Your task to perform on an android device: delete browsing data in the chrome app Image 0: 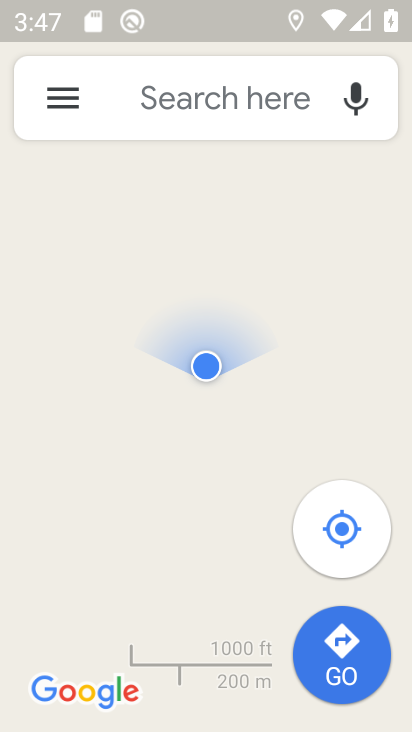
Step 0: press home button
Your task to perform on an android device: delete browsing data in the chrome app Image 1: 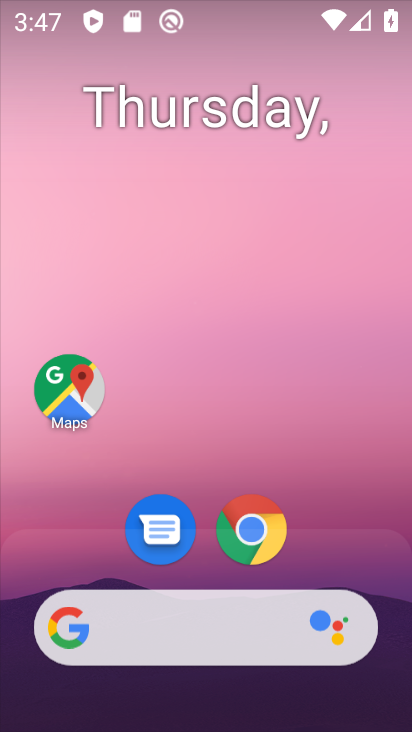
Step 1: click (258, 536)
Your task to perform on an android device: delete browsing data in the chrome app Image 2: 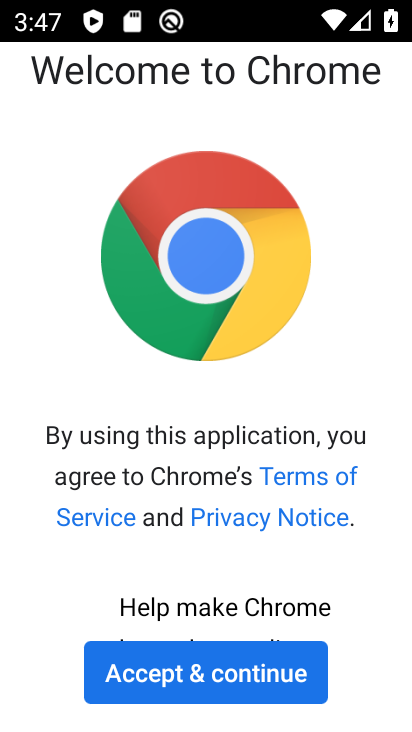
Step 2: click (189, 671)
Your task to perform on an android device: delete browsing data in the chrome app Image 3: 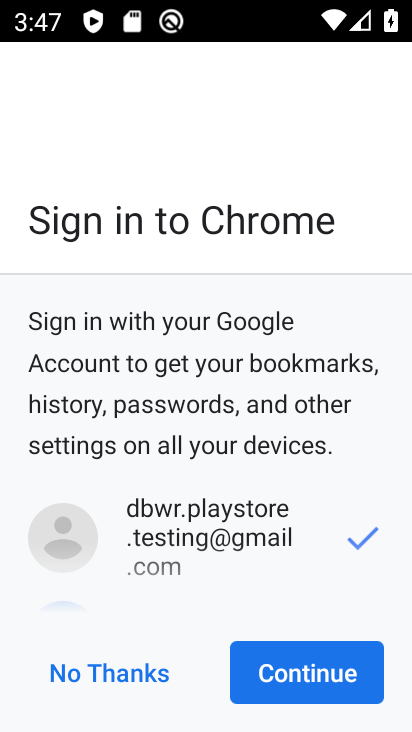
Step 3: click (286, 688)
Your task to perform on an android device: delete browsing data in the chrome app Image 4: 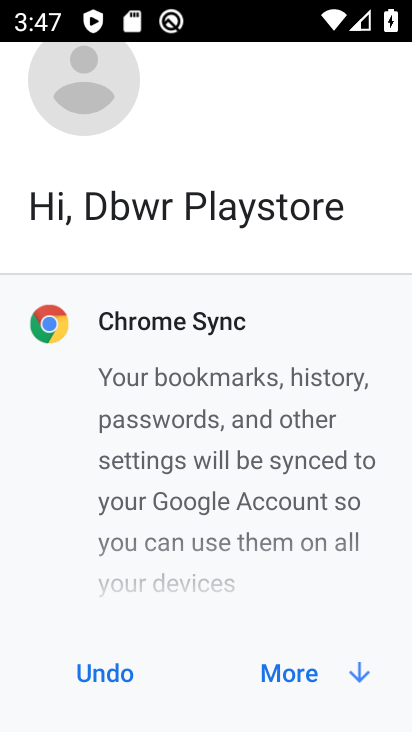
Step 4: click (298, 679)
Your task to perform on an android device: delete browsing data in the chrome app Image 5: 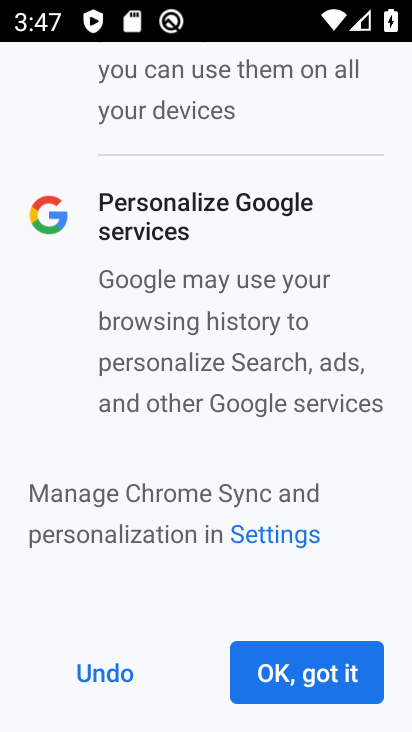
Step 5: click (299, 679)
Your task to perform on an android device: delete browsing data in the chrome app Image 6: 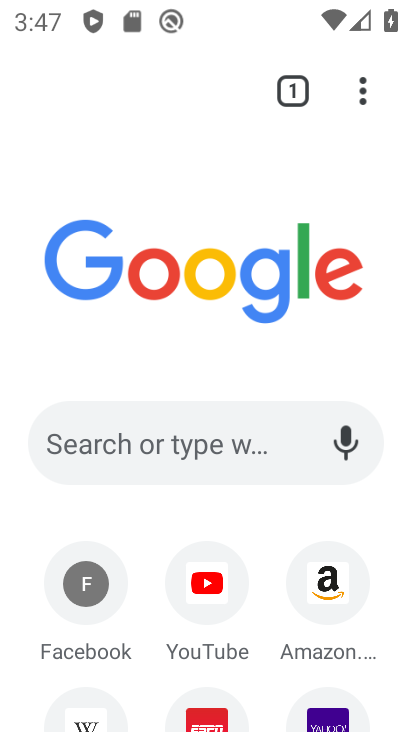
Step 6: drag from (359, 93) to (258, 580)
Your task to perform on an android device: delete browsing data in the chrome app Image 7: 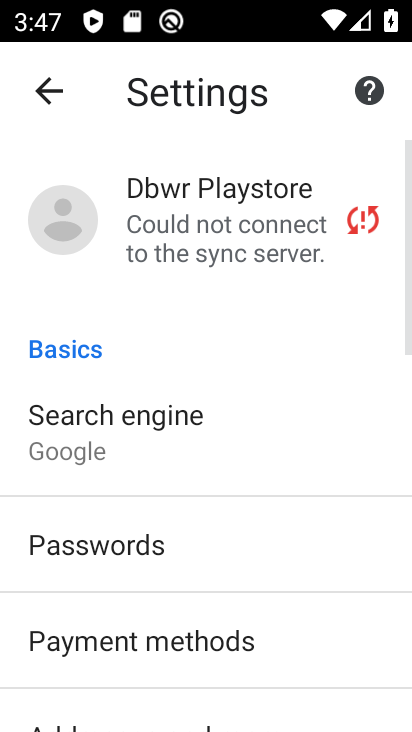
Step 7: drag from (154, 610) to (274, 277)
Your task to perform on an android device: delete browsing data in the chrome app Image 8: 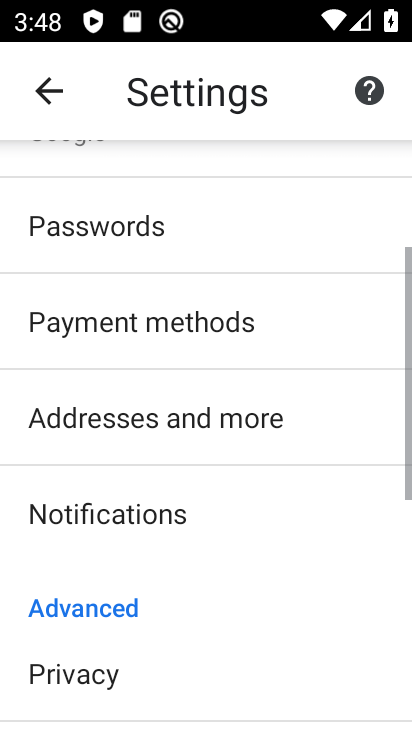
Step 8: drag from (156, 609) to (233, 345)
Your task to perform on an android device: delete browsing data in the chrome app Image 9: 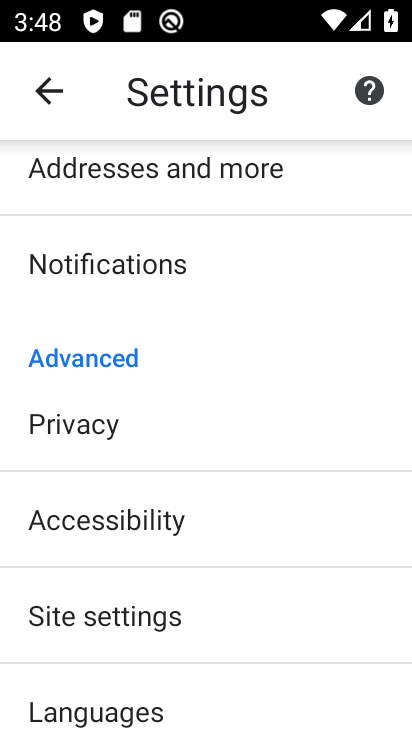
Step 9: click (180, 412)
Your task to perform on an android device: delete browsing data in the chrome app Image 10: 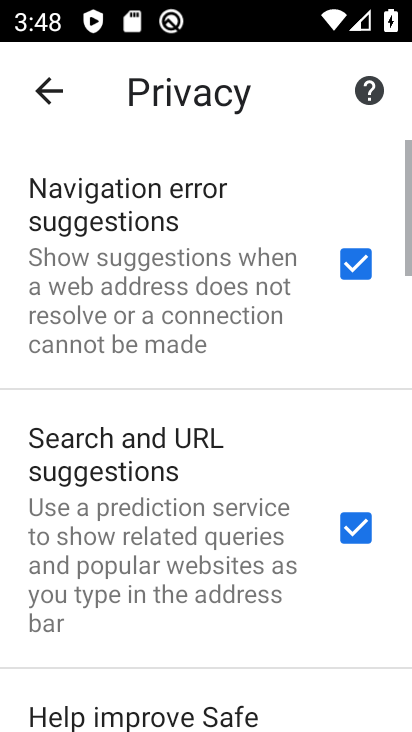
Step 10: drag from (157, 648) to (259, 207)
Your task to perform on an android device: delete browsing data in the chrome app Image 11: 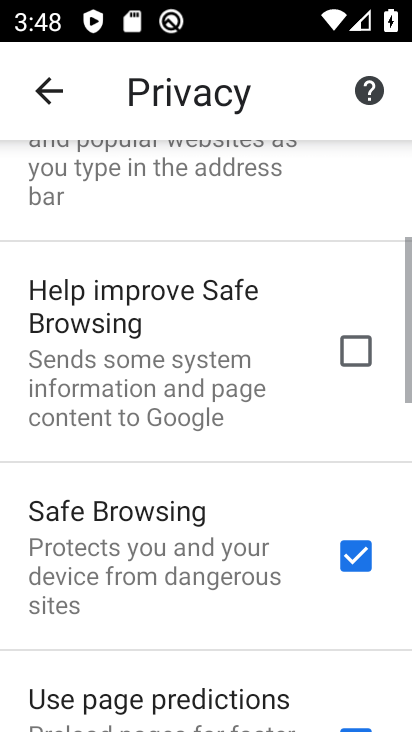
Step 11: drag from (126, 647) to (248, 266)
Your task to perform on an android device: delete browsing data in the chrome app Image 12: 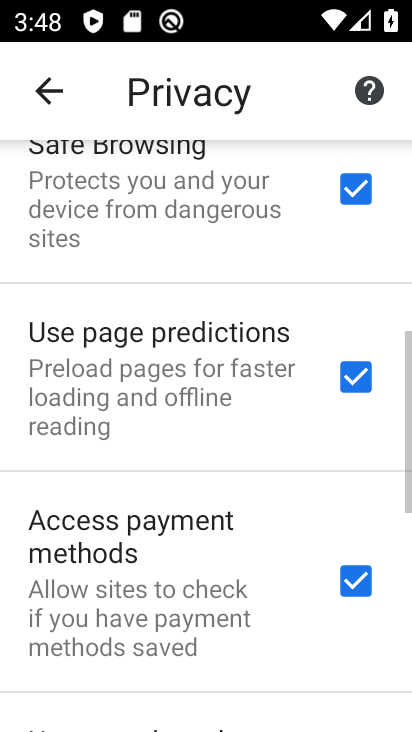
Step 12: drag from (137, 597) to (259, 157)
Your task to perform on an android device: delete browsing data in the chrome app Image 13: 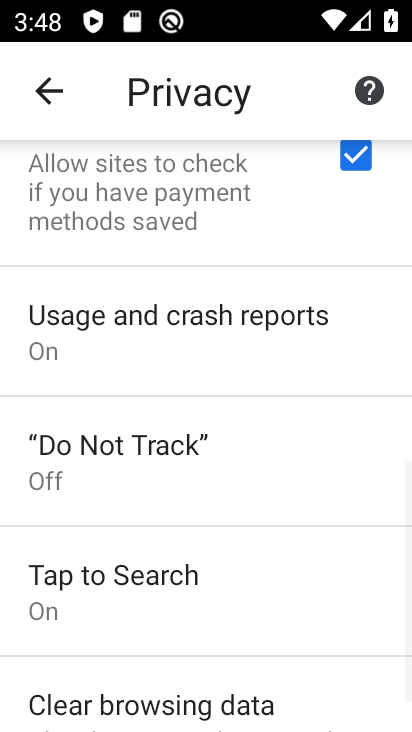
Step 13: drag from (133, 688) to (250, 269)
Your task to perform on an android device: delete browsing data in the chrome app Image 14: 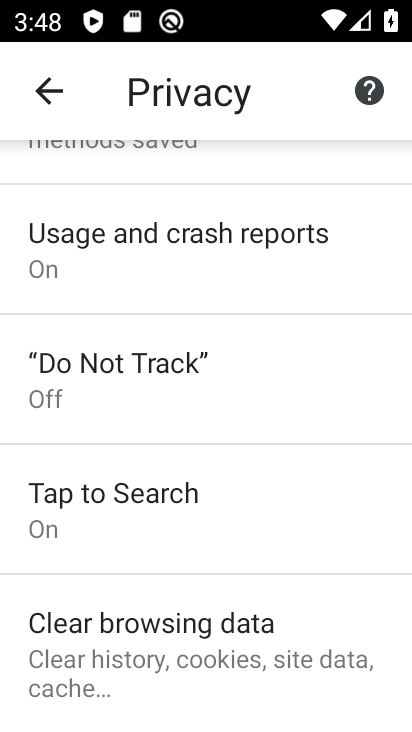
Step 14: click (182, 679)
Your task to perform on an android device: delete browsing data in the chrome app Image 15: 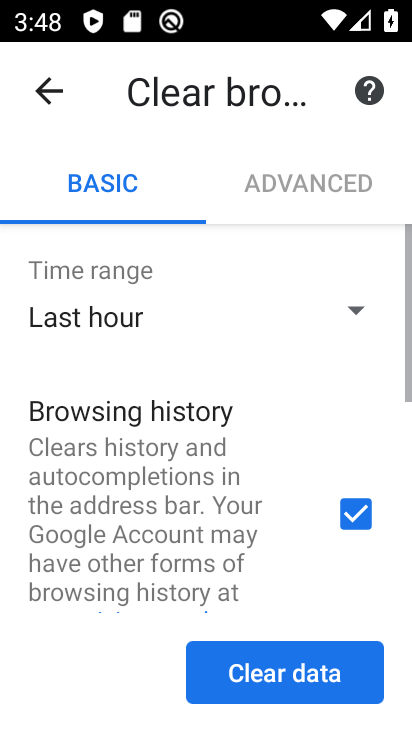
Step 15: click (317, 676)
Your task to perform on an android device: delete browsing data in the chrome app Image 16: 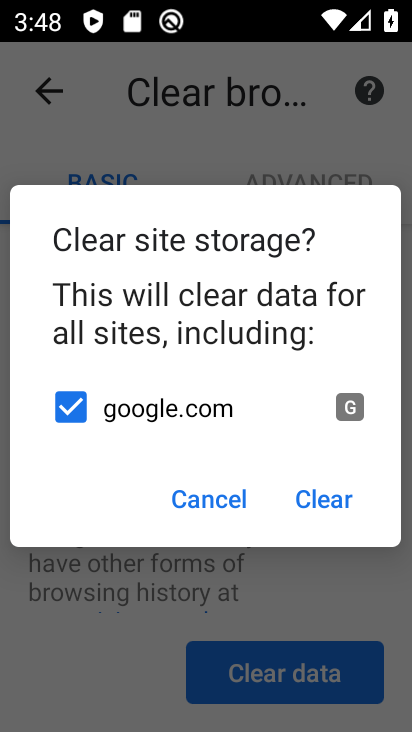
Step 16: click (357, 518)
Your task to perform on an android device: delete browsing data in the chrome app Image 17: 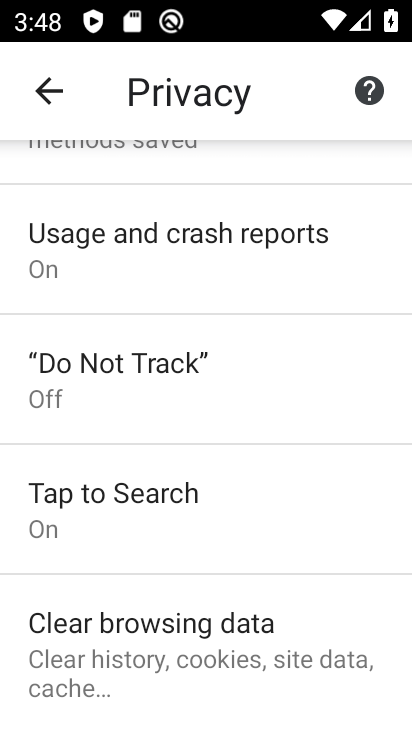
Step 17: task complete